Your task to perform on an android device: Clear the cart on walmart.com. Search for razer kraken on walmart.com, select the first entry, add it to the cart, then select checkout. Image 0: 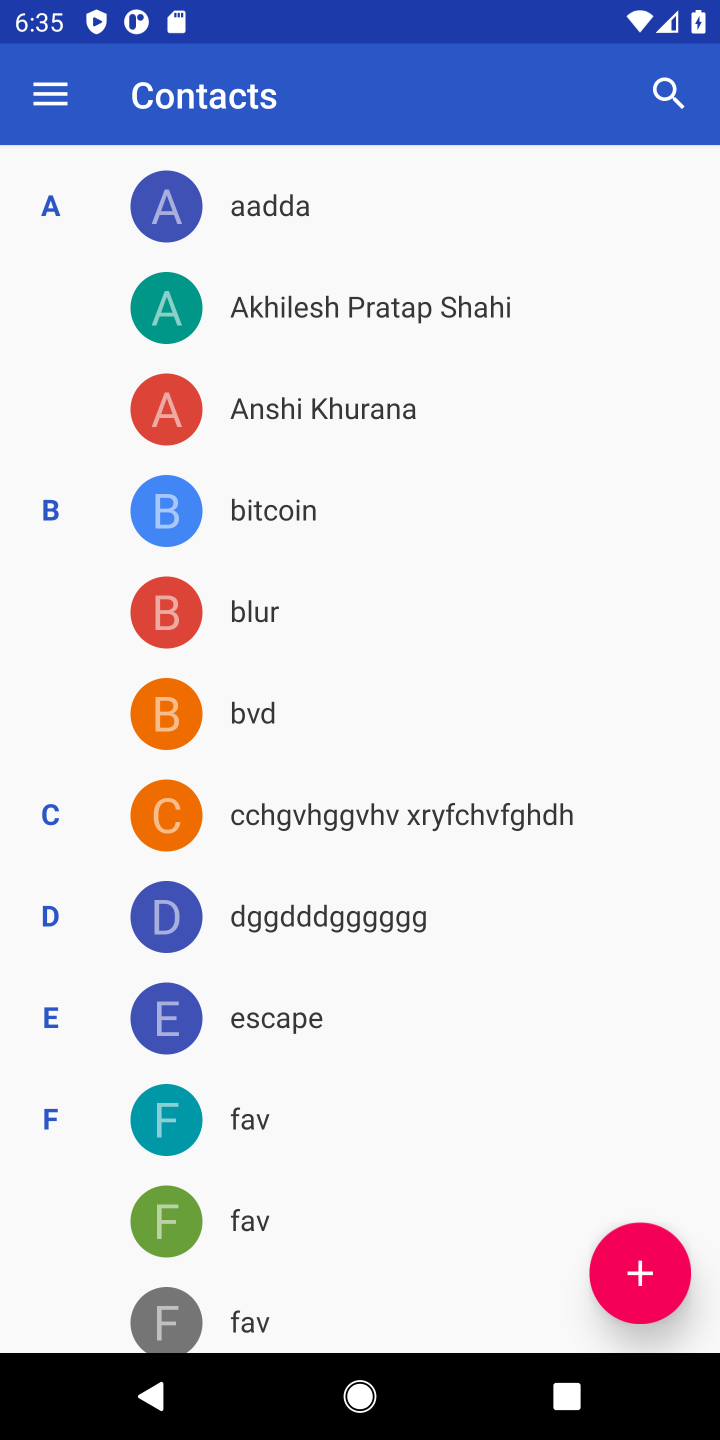
Step 0: press home button
Your task to perform on an android device: Clear the cart on walmart.com. Search for razer kraken on walmart.com, select the first entry, add it to the cart, then select checkout. Image 1: 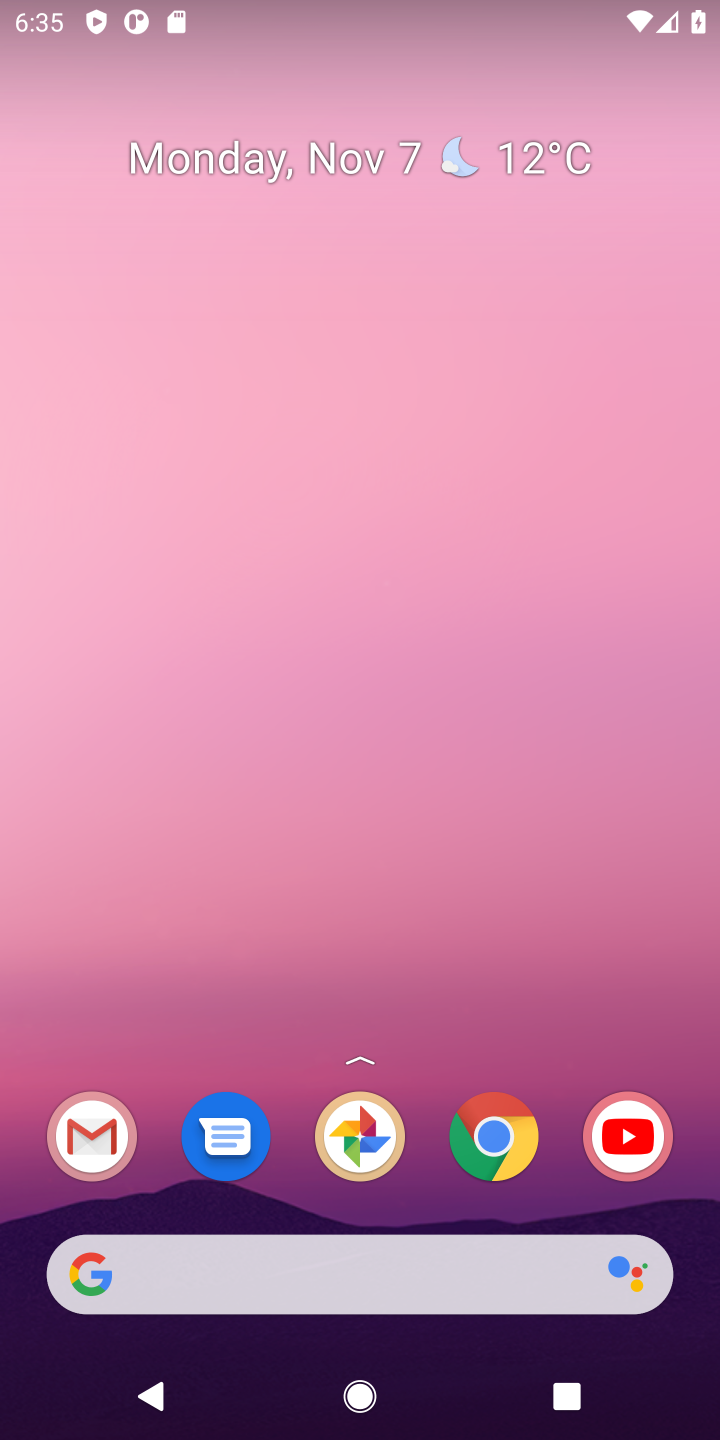
Step 1: click (307, 1279)
Your task to perform on an android device: Clear the cart on walmart.com. Search for razer kraken on walmart.com, select the first entry, add it to the cart, then select checkout. Image 2: 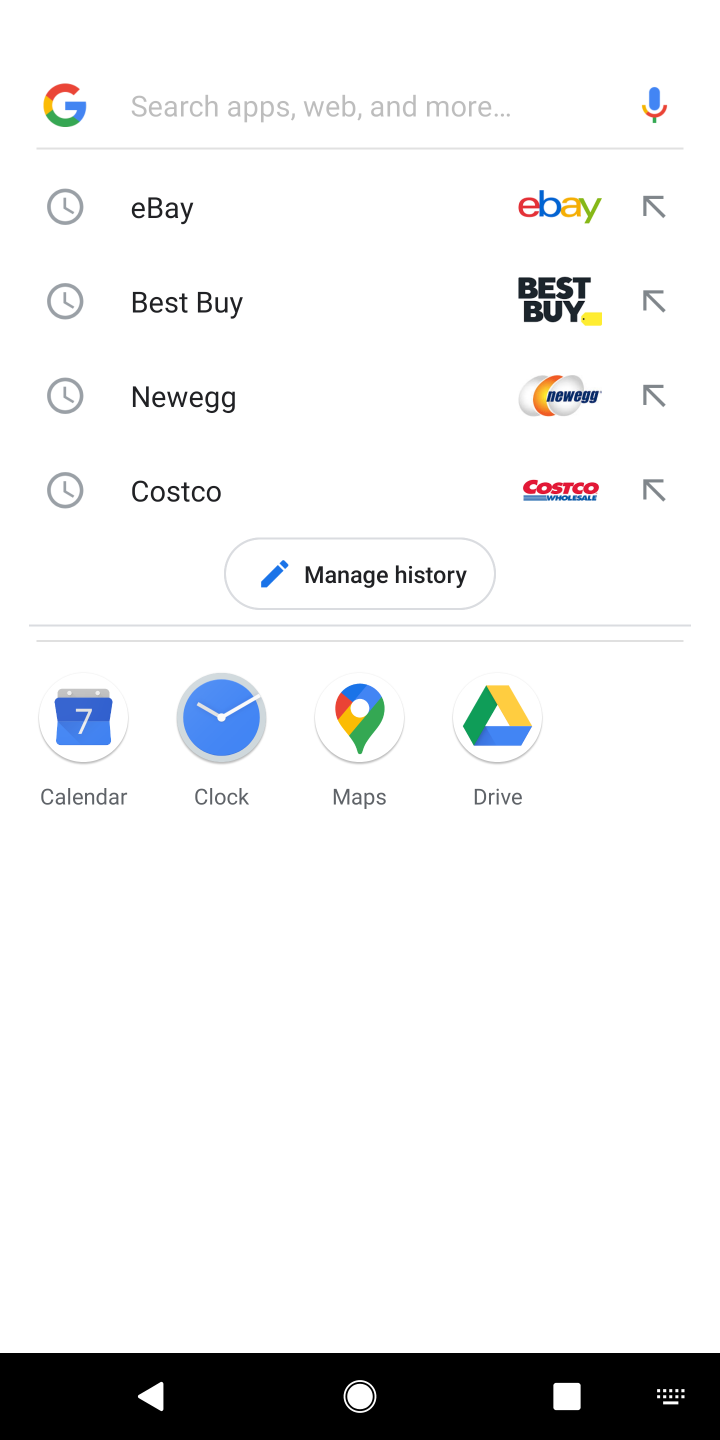
Step 2: type "walmart.com"
Your task to perform on an android device: Clear the cart on walmart.com. Search for razer kraken on walmart.com, select the first entry, add it to the cart, then select checkout. Image 3: 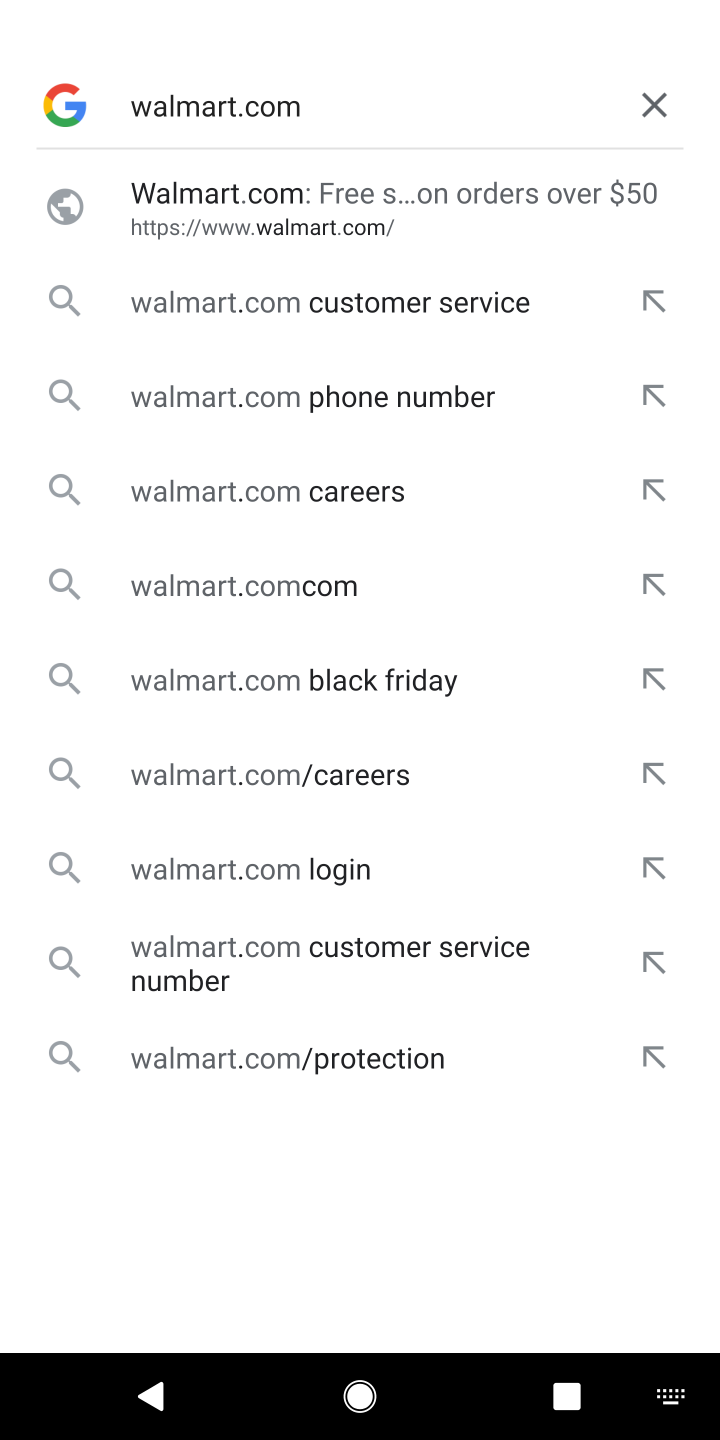
Step 3: type ""
Your task to perform on an android device: Clear the cart on walmart.com. Search for razer kraken on walmart.com, select the first entry, add it to the cart, then select checkout. Image 4: 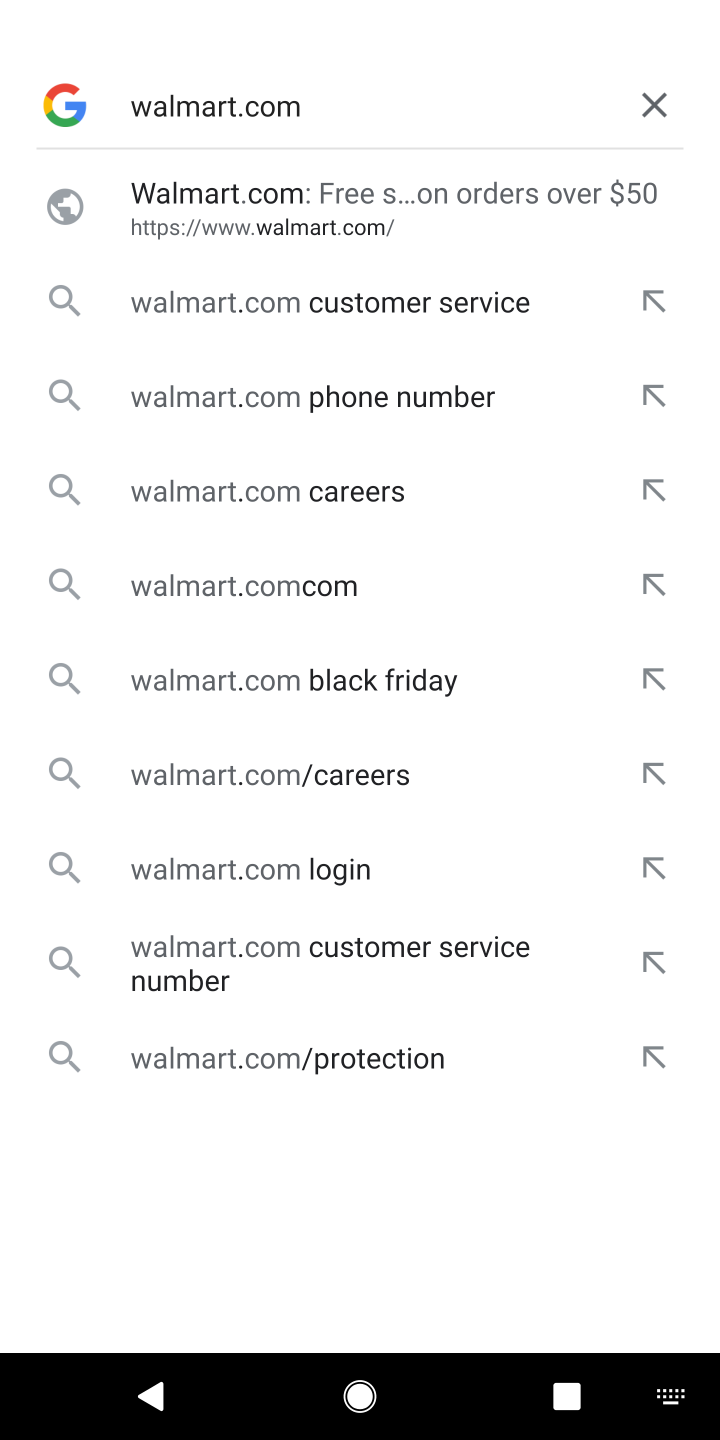
Step 4: click (190, 198)
Your task to perform on an android device: Clear the cart on walmart.com. Search for razer kraken on walmart.com, select the first entry, add it to the cart, then select checkout. Image 5: 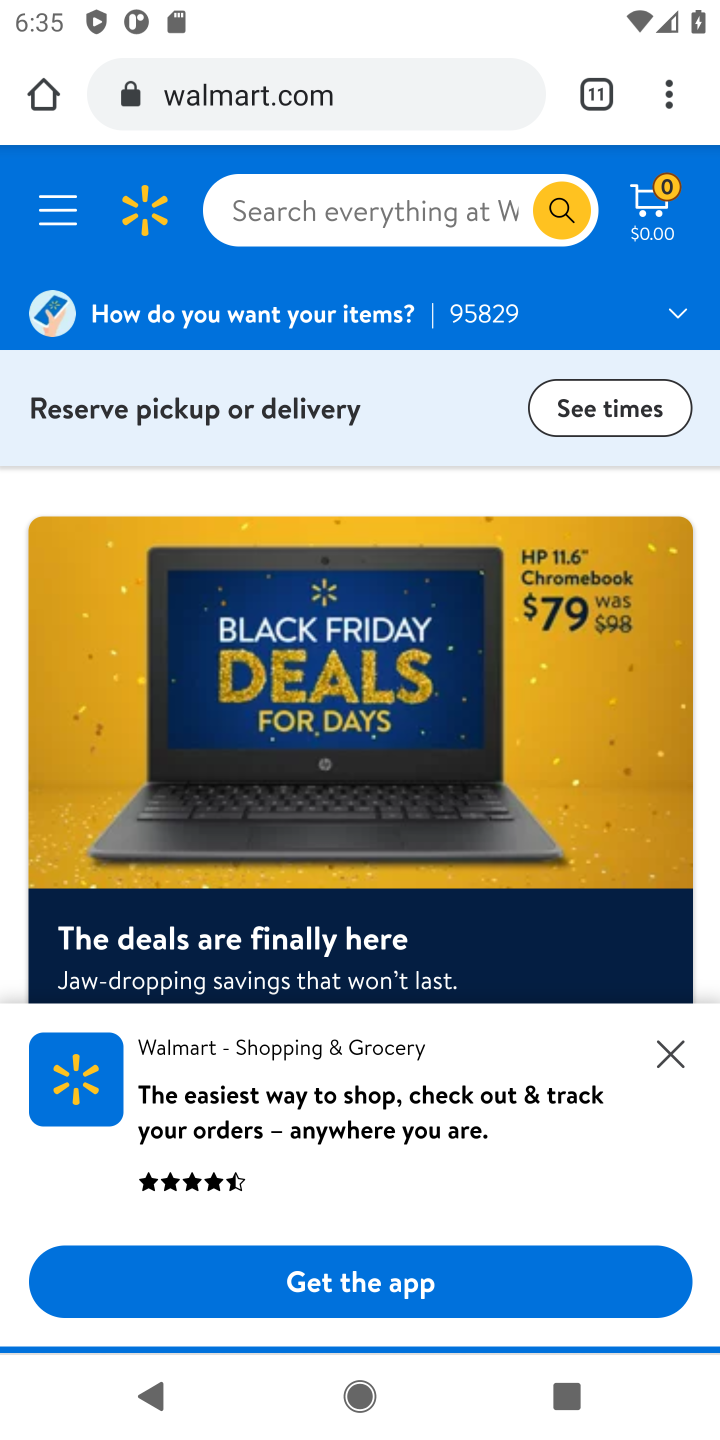
Step 5: click (298, 212)
Your task to perform on an android device: Clear the cart on walmart.com. Search for razer kraken on walmart.com, select the first entry, add it to the cart, then select checkout. Image 6: 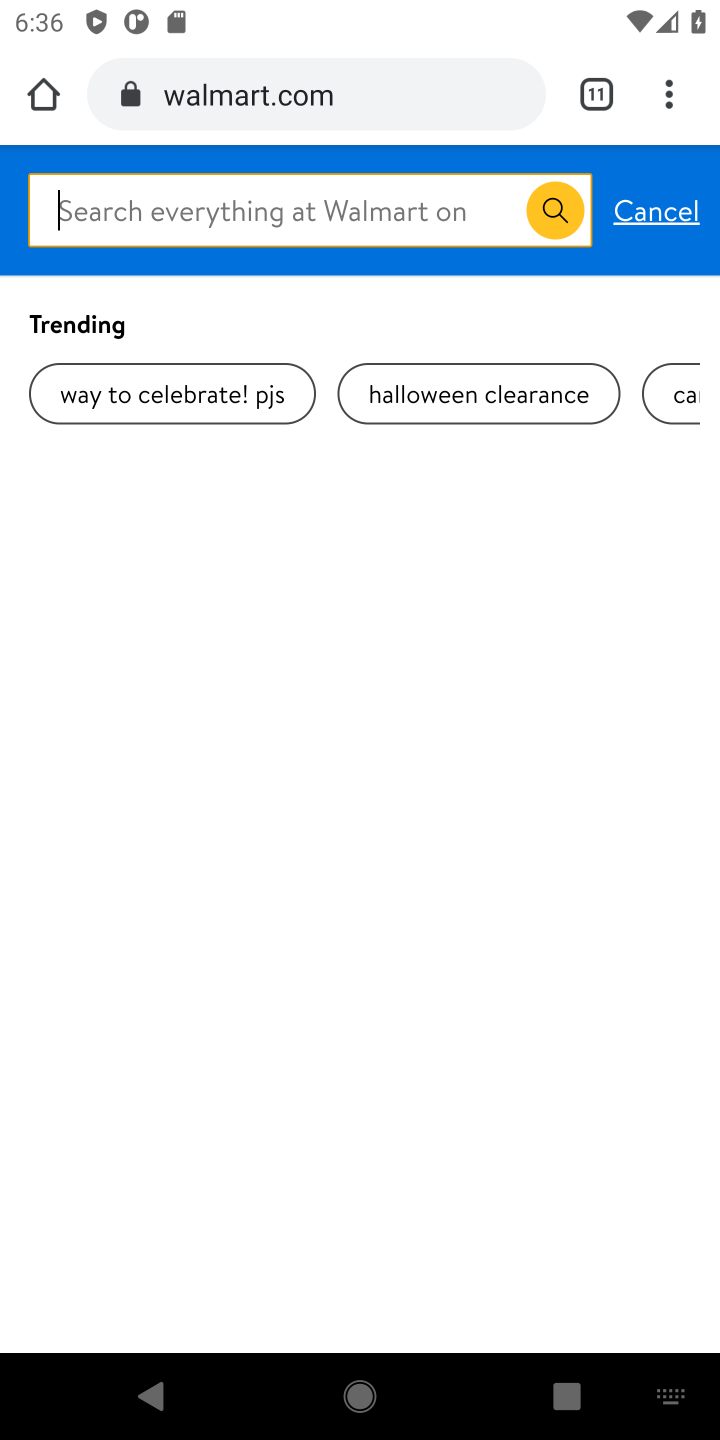
Step 6: type "razer kraken"
Your task to perform on an android device: Clear the cart on walmart.com. Search for razer kraken on walmart.com, select the first entry, add it to the cart, then select checkout. Image 7: 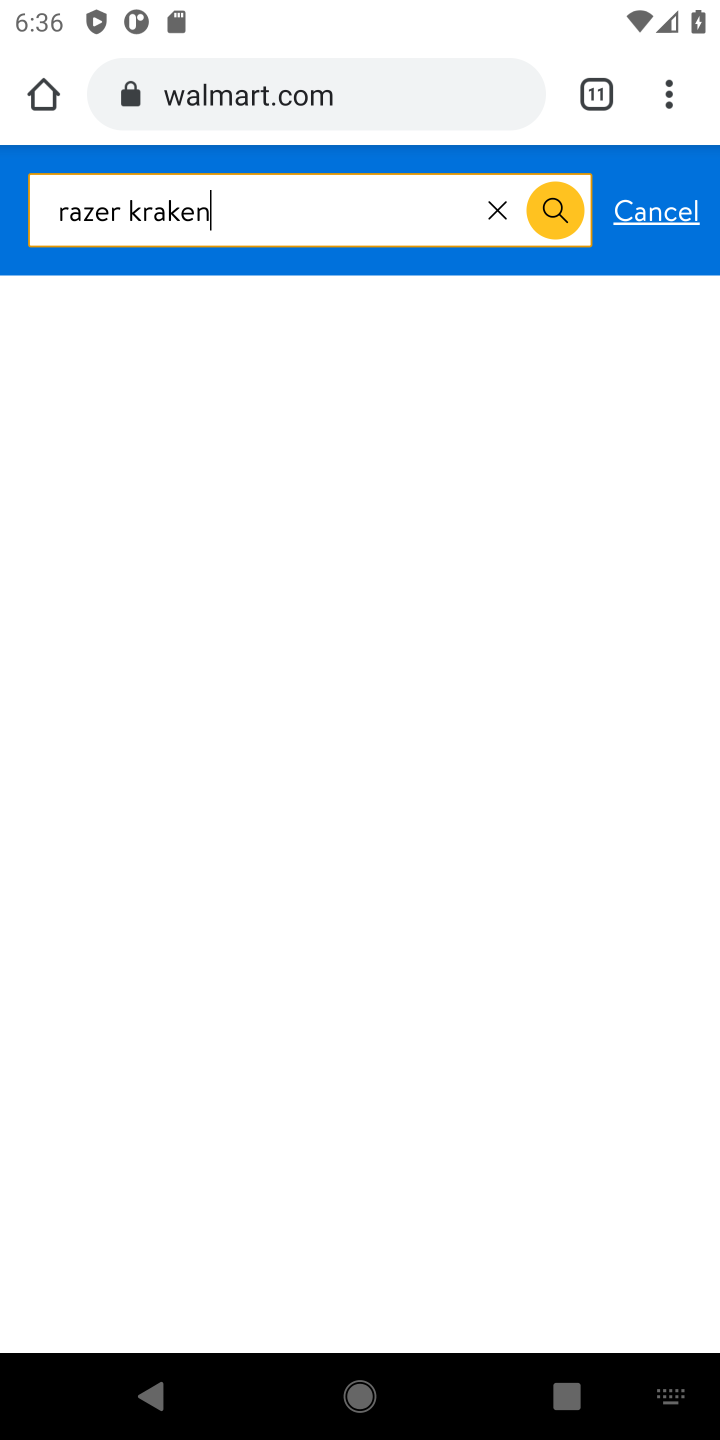
Step 7: type ""
Your task to perform on an android device: Clear the cart on walmart.com. Search for razer kraken on walmart.com, select the first entry, add it to the cart, then select checkout. Image 8: 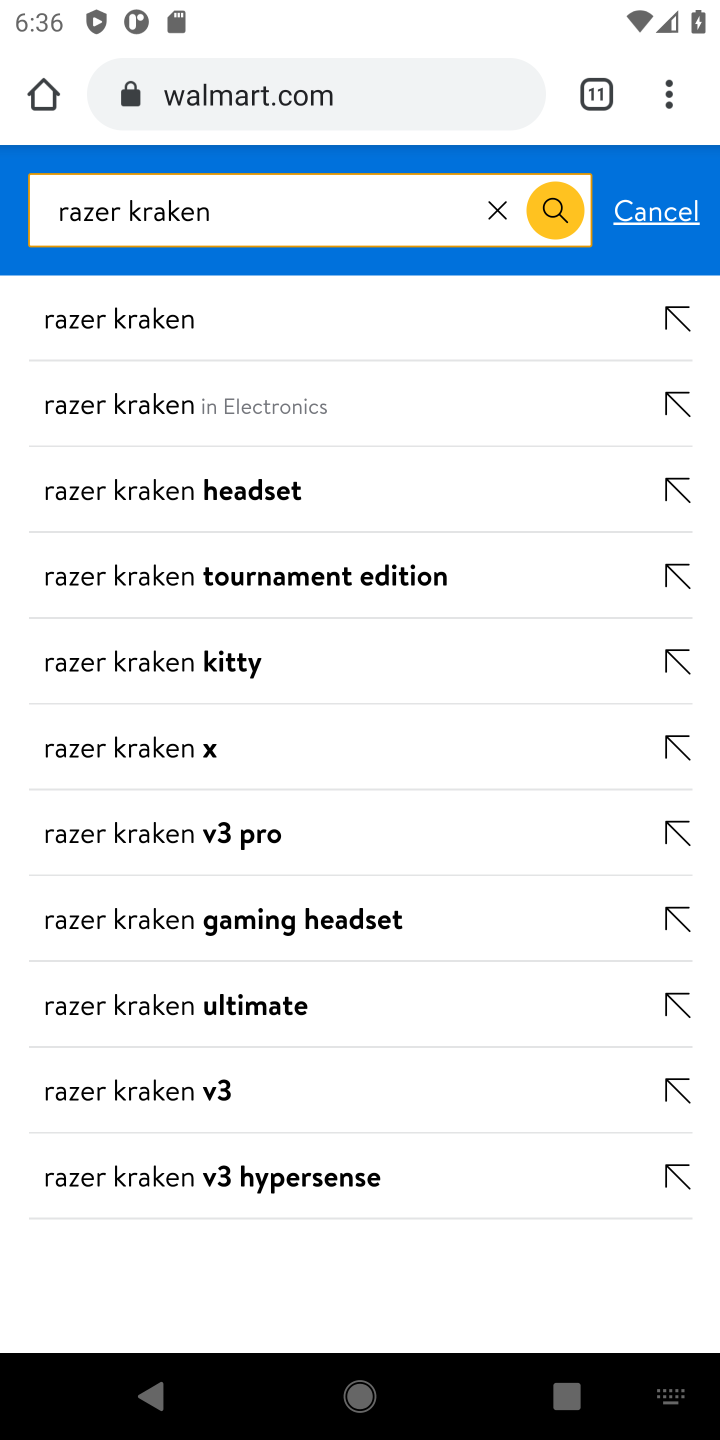
Step 8: click (157, 314)
Your task to perform on an android device: Clear the cart on walmart.com. Search for razer kraken on walmart.com, select the first entry, add it to the cart, then select checkout. Image 9: 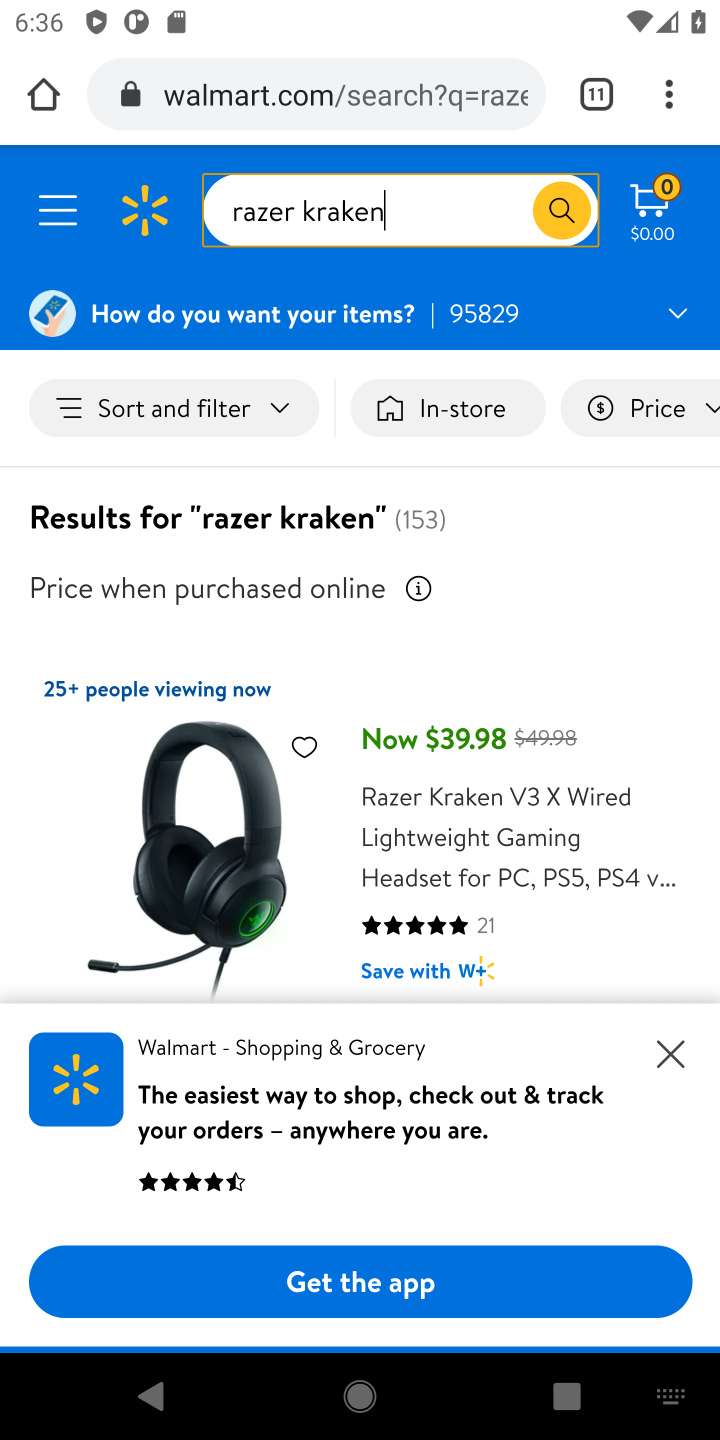
Step 9: click (666, 1056)
Your task to perform on an android device: Clear the cart on walmart.com. Search for razer kraken on walmart.com, select the first entry, add it to the cart, then select checkout. Image 10: 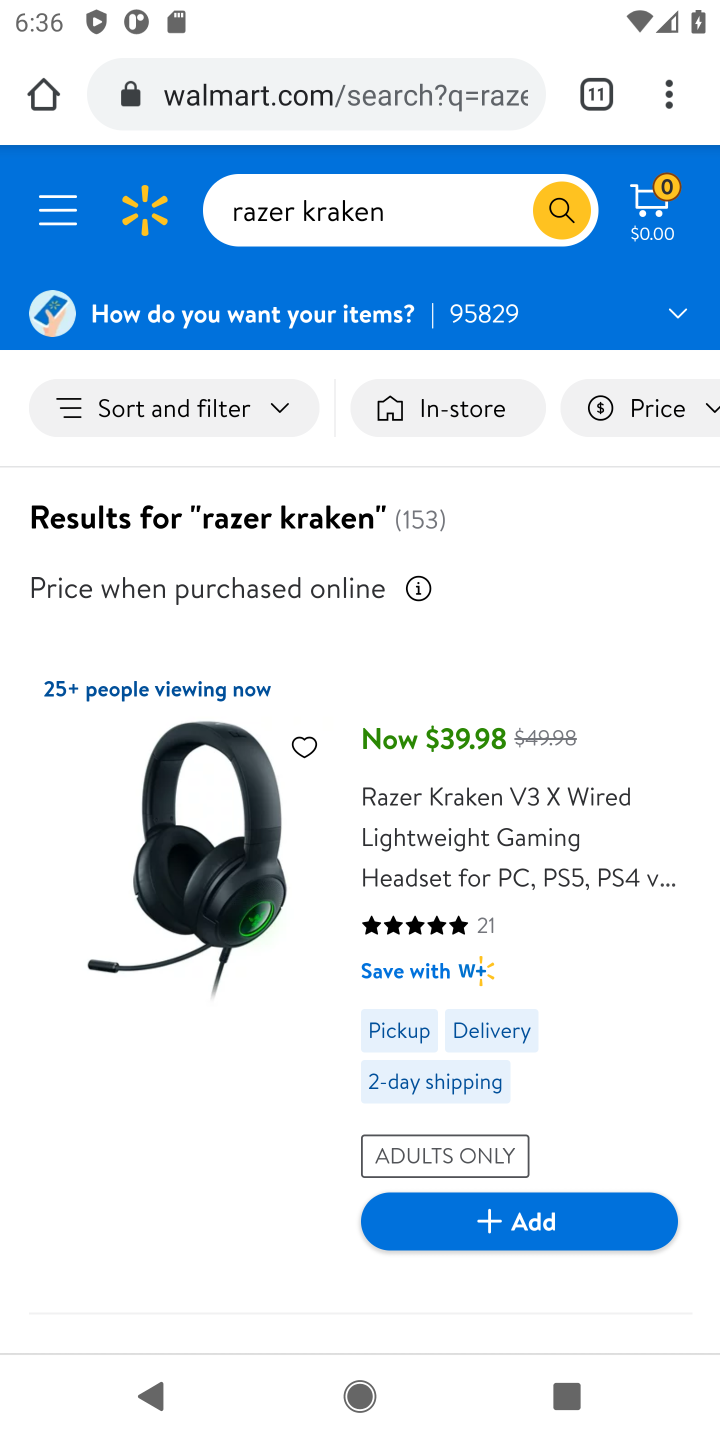
Step 10: click (491, 1220)
Your task to perform on an android device: Clear the cart on walmart.com. Search for razer kraken on walmart.com, select the first entry, add it to the cart, then select checkout. Image 11: 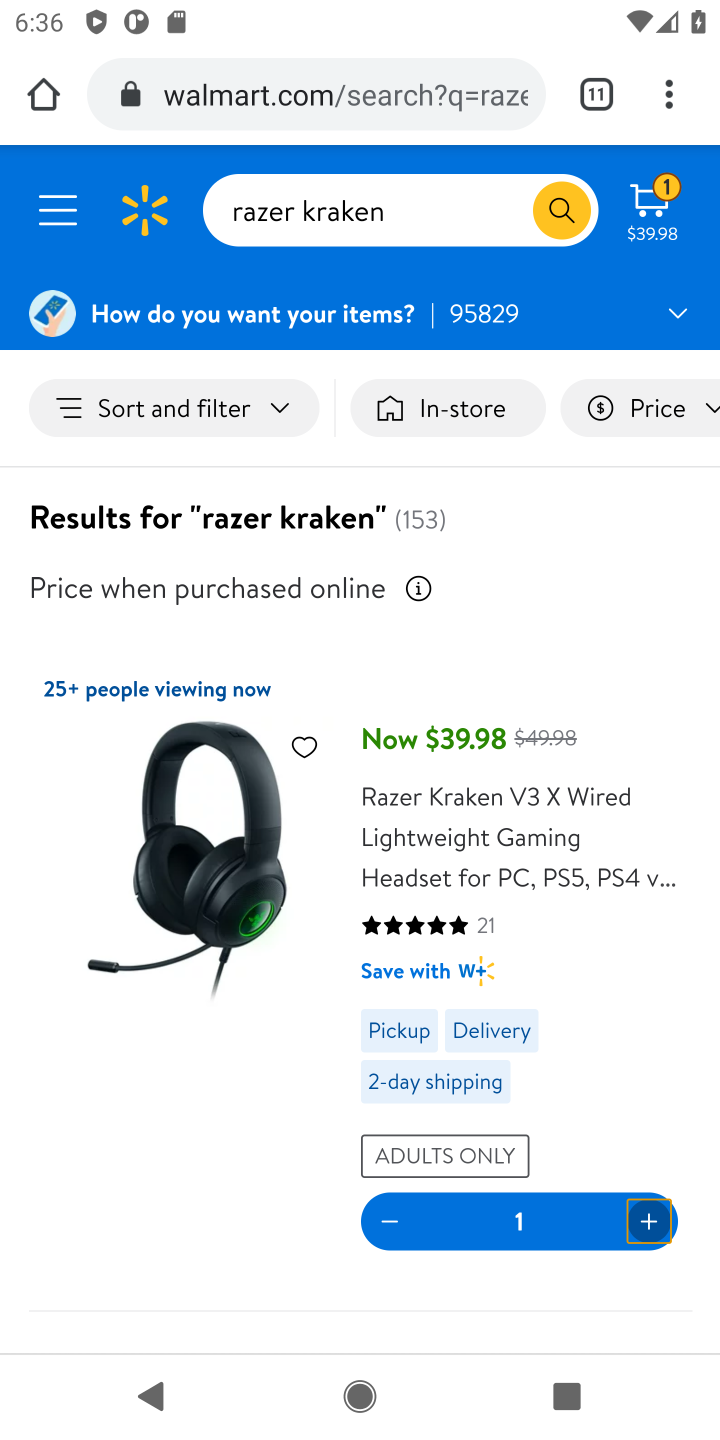
Step 11: click (642, 194)
Your task to perform on an android device: Clear the cart on walmart.com. Search for razer kraken on walmart.com, select the first entry, add it to the cart, then select checkout. Image 12: 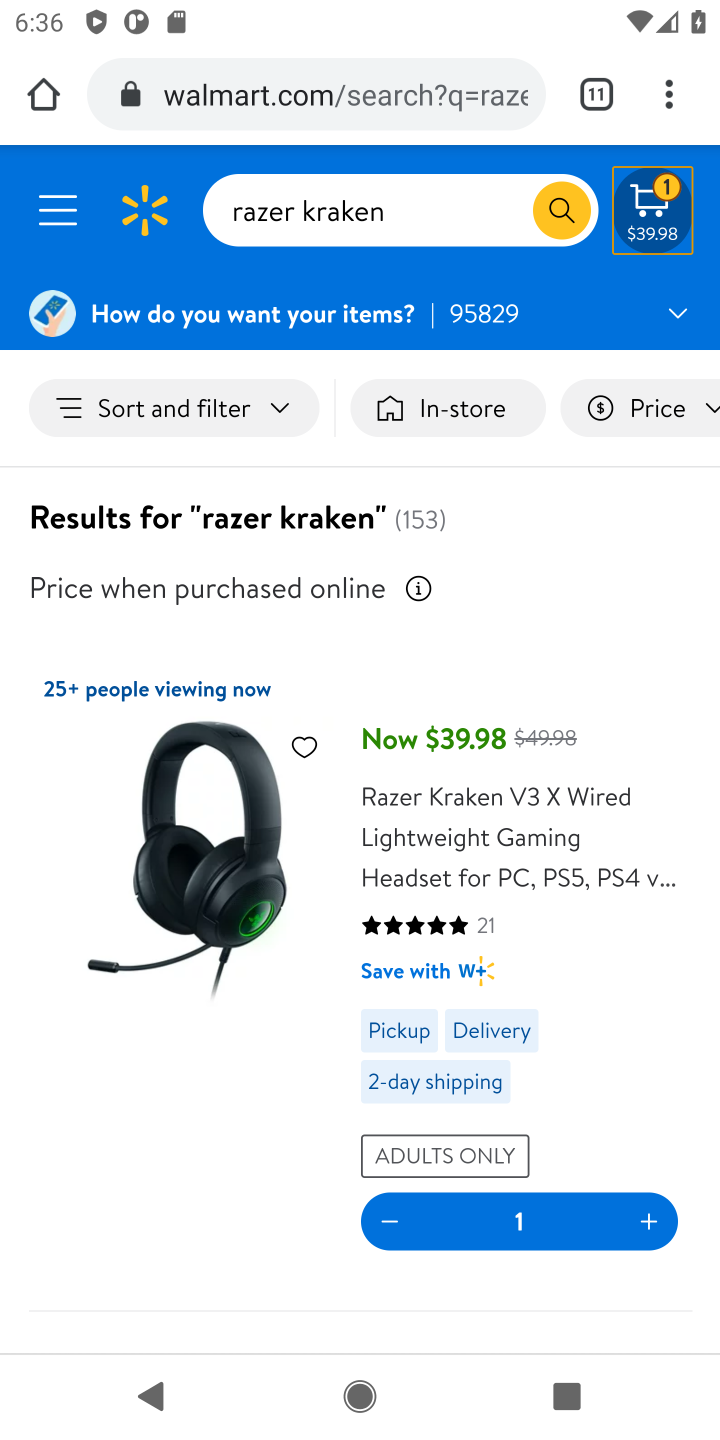
Step 12: click (652, 201)
Your task to perform on an android device: Clear the cart on walmart.com. Search for razer kraken on walmart.com, select the first entry, add it to the cart, then select checkout. Image 13: 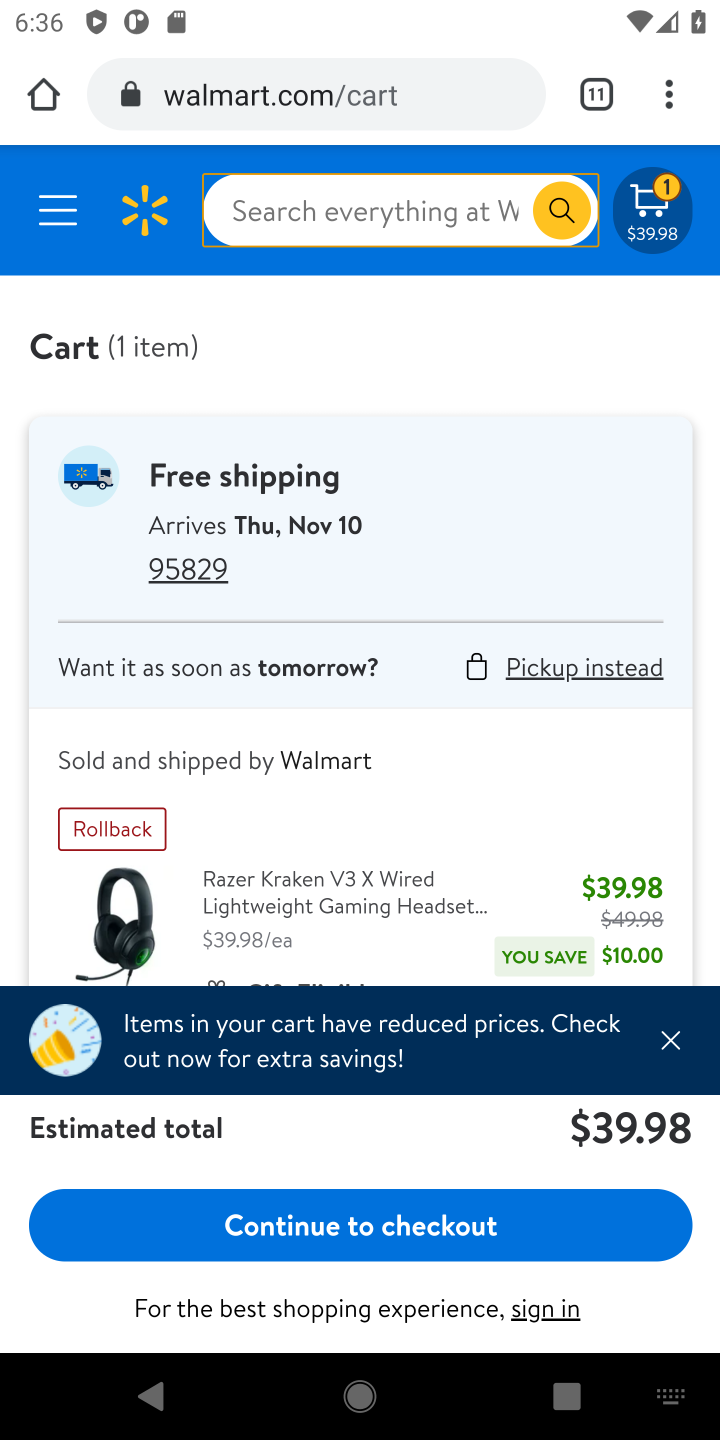
Step 13: click (439, 1211)
Your task to perform on an android device: Clear the cart on walmart.com. Search for razer kraken on walmart.com, select the first entry, add it to the cart, then select checkout. Image 14: 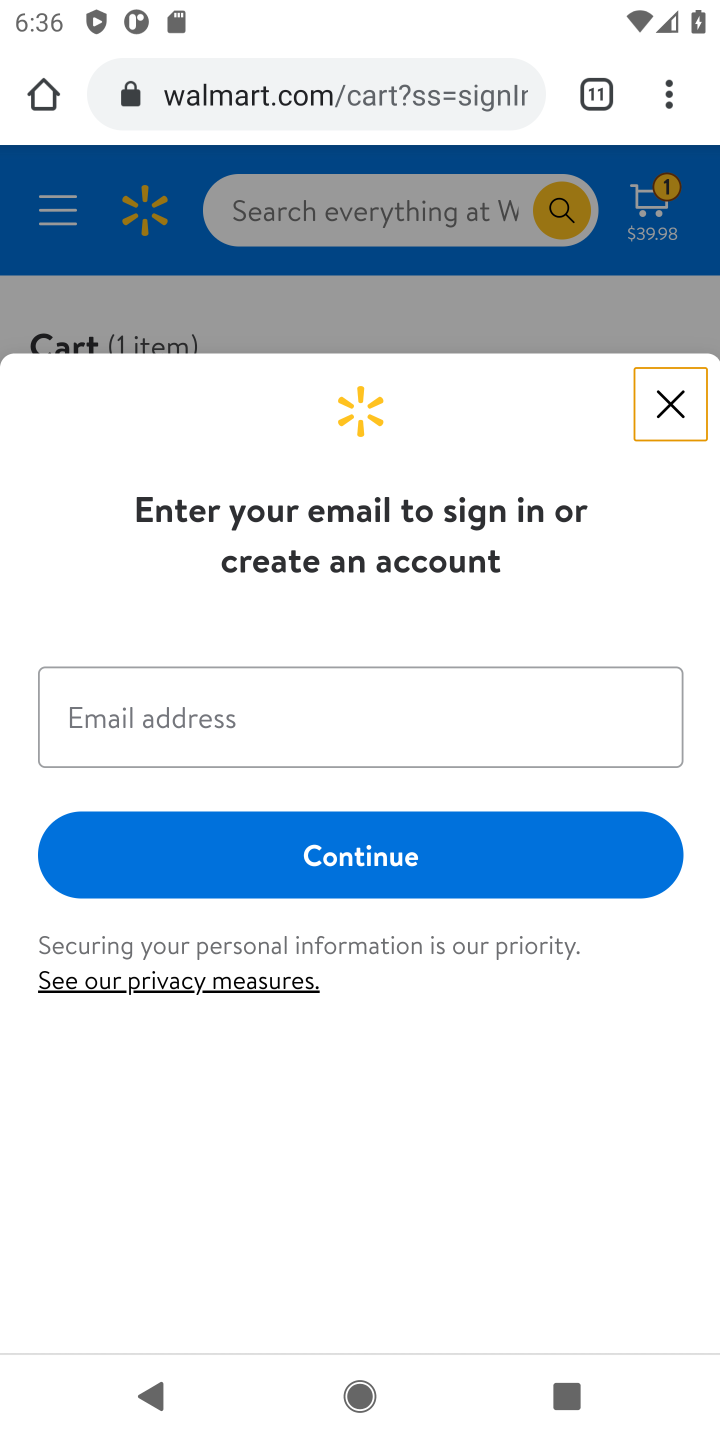
Step 14: task complete